Your task to perform on an android device: check battery use Image 0: 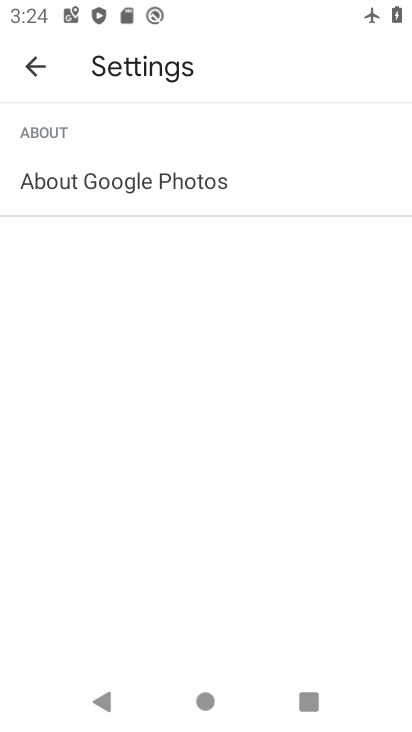
Step 0: press home button
Your task to perform on an android device: check battery use Image 1: 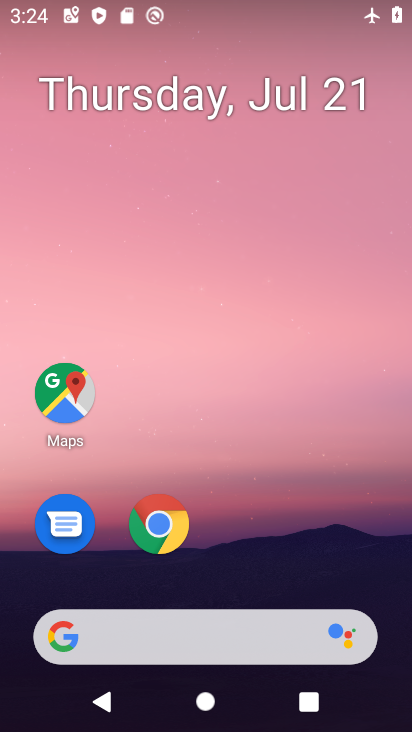
Step 1: drag from (249, 541) to (251, 31)
Your task to perform on an android device: check battery use Image 2: 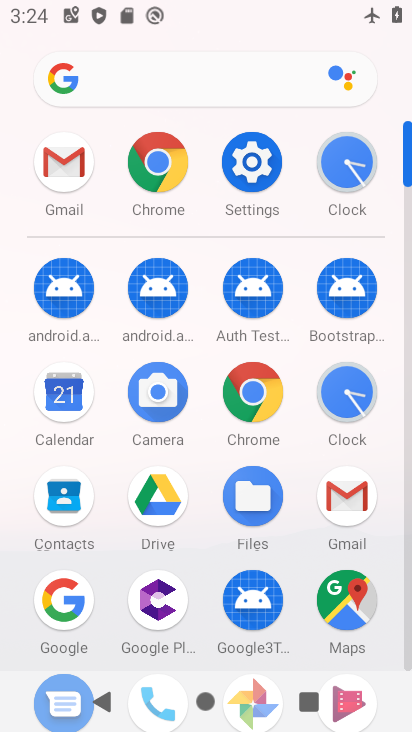
Step 2: click (262, 170)
Your task to perform on an android device: check battery use Image 3: 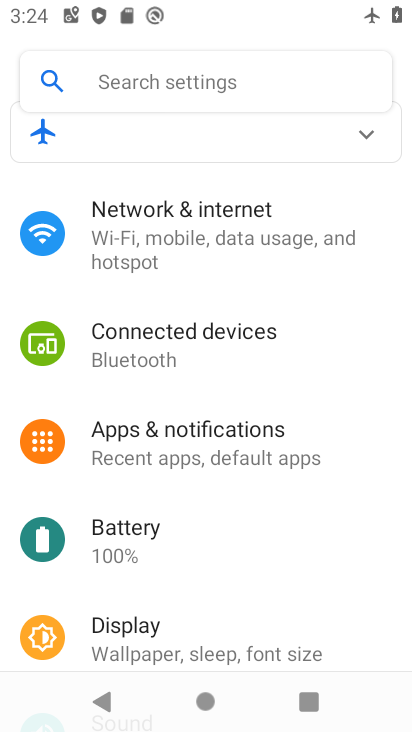
Step 3: click (136, 534)
Your task to perform on an android device: check battery use Image 4: 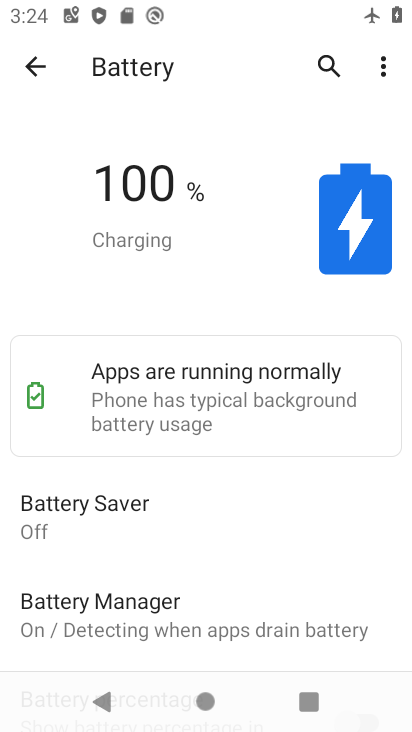
Step 4: click (379, 57)
Your task to perform on an android device: check battery use Image 5: 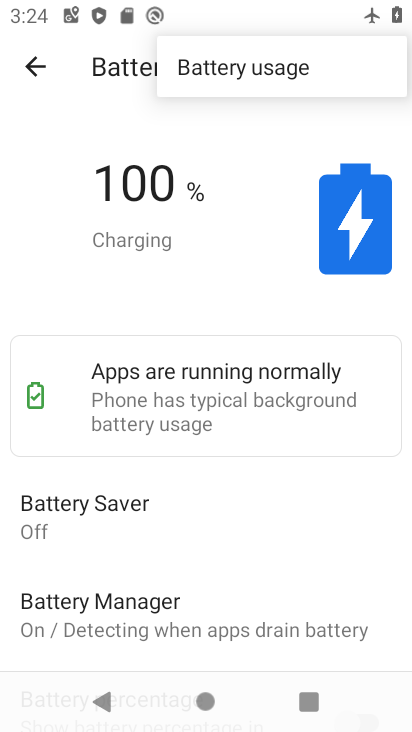
Step 5: click (288, 69)
Your task to perform on an android device: check battery use Image 6: 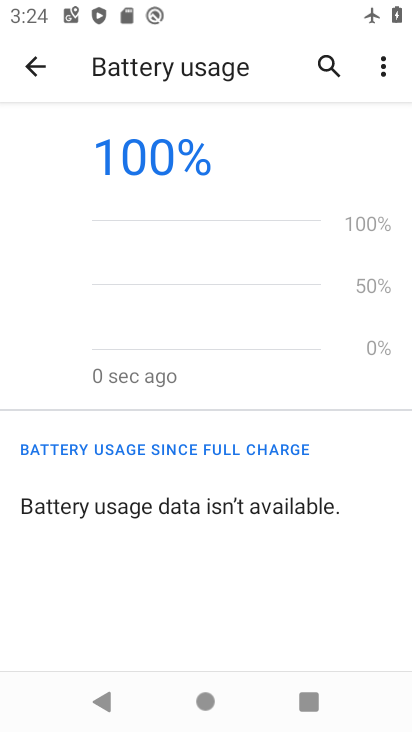
Step 6: task complete